Your task to perform on an android device: Open CNN.com Image 0: 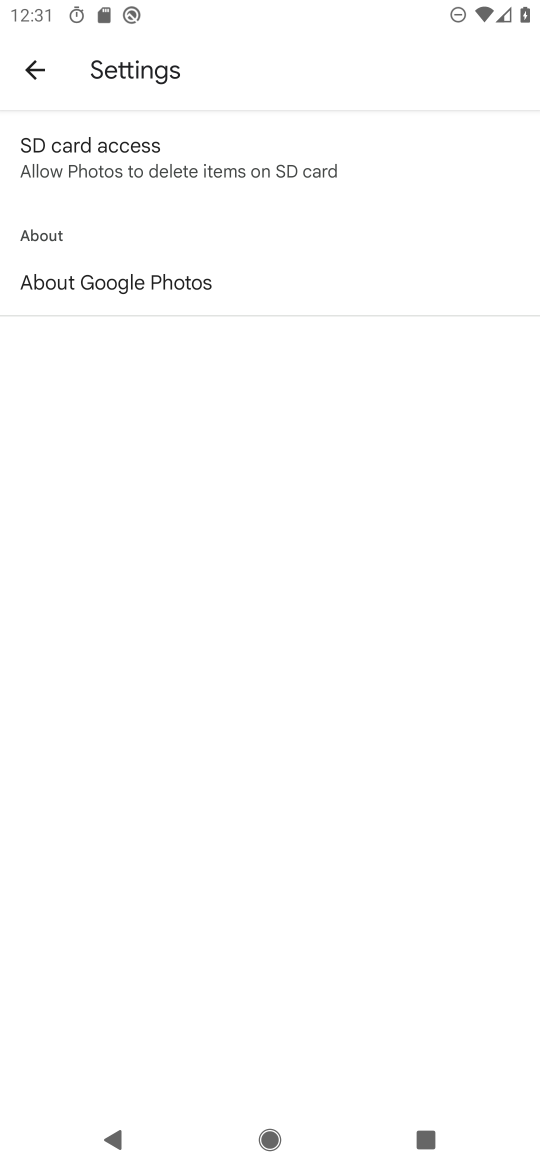
Step 0: press home button
Your task to perform on an android device: Open CNN.com Image 1: 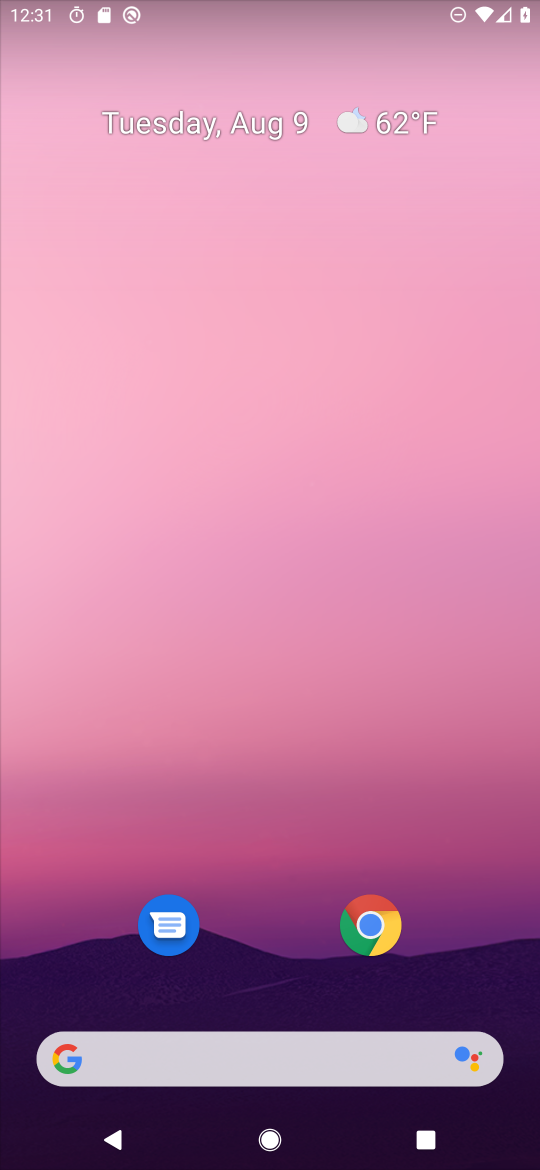
Step 1: click (365, 927)
Your task to perform on an android device: Open CNN.com Image 2: 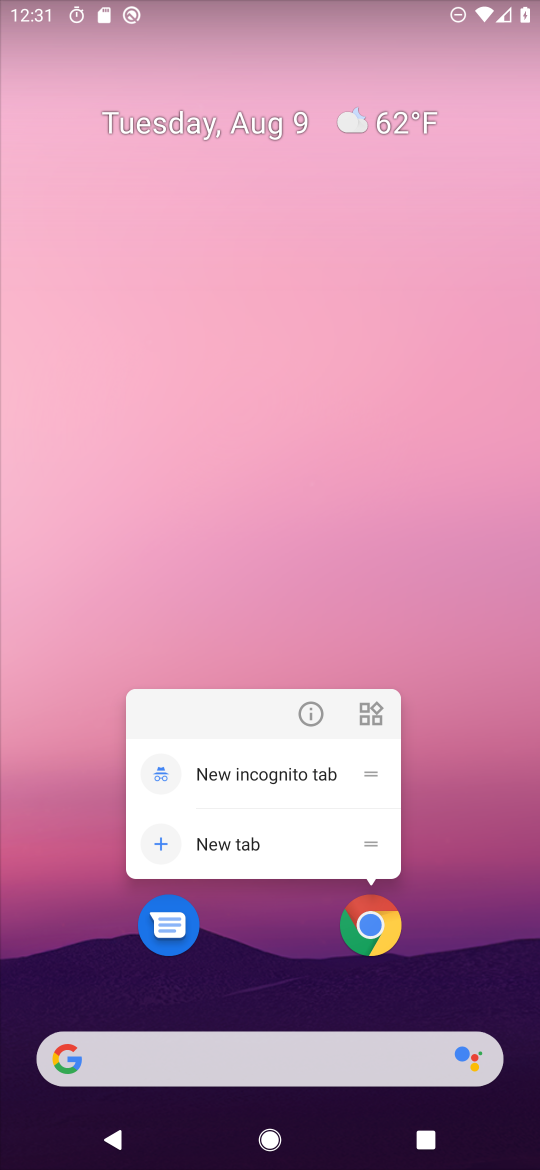
Step 2: click (369, 926)
Your task to perform on an android device: Open CNN.com Image 3: 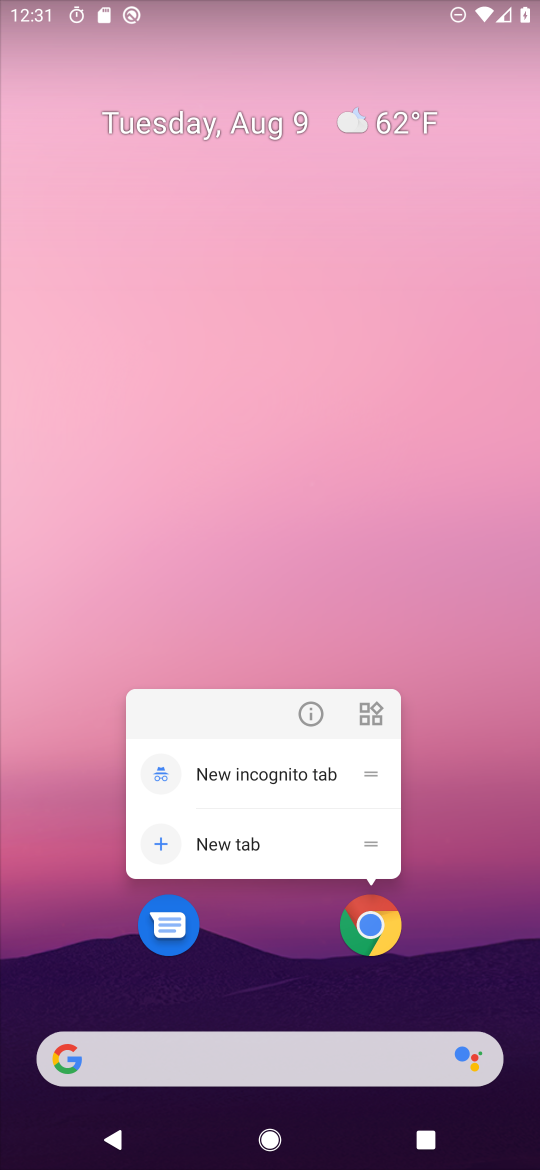
Step 3: click (379, 920)
Your task to perform on an android device: Open CNN.com Image 4: 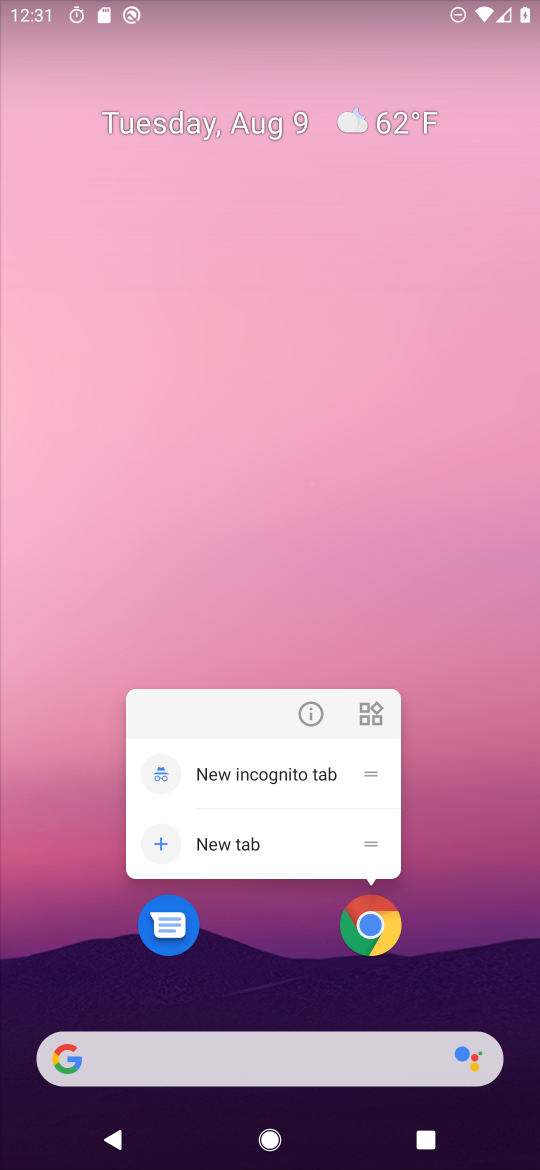
Step 4: click (444, 822)
Your task to perform on an android device: Open CNN.com Image 5: 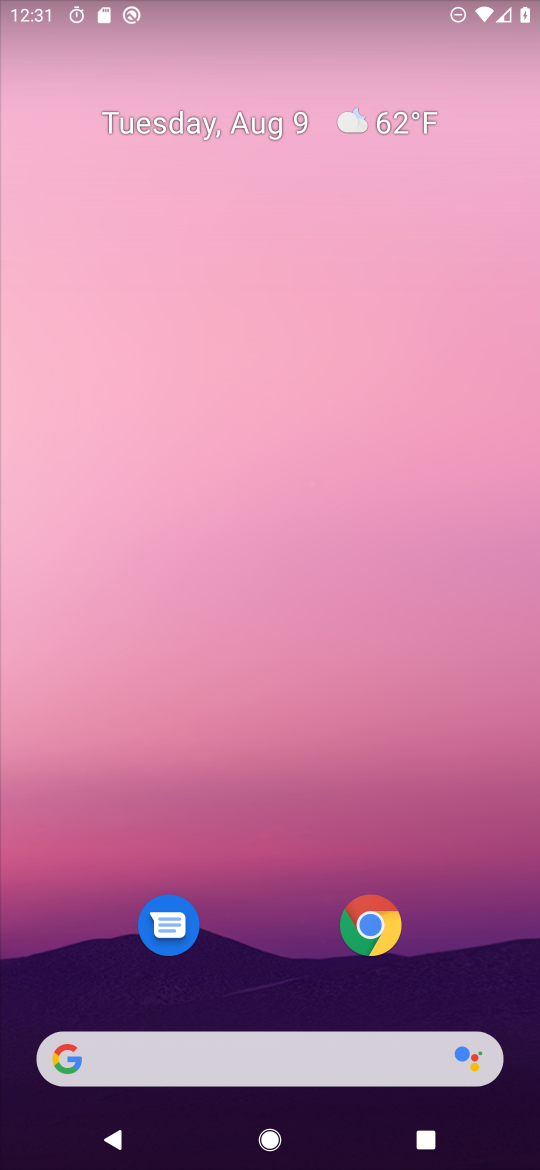
Step 5: drag from (256, 943) to (289, 284)
Your task to perform on an android device: Open CNN.com Image 6: 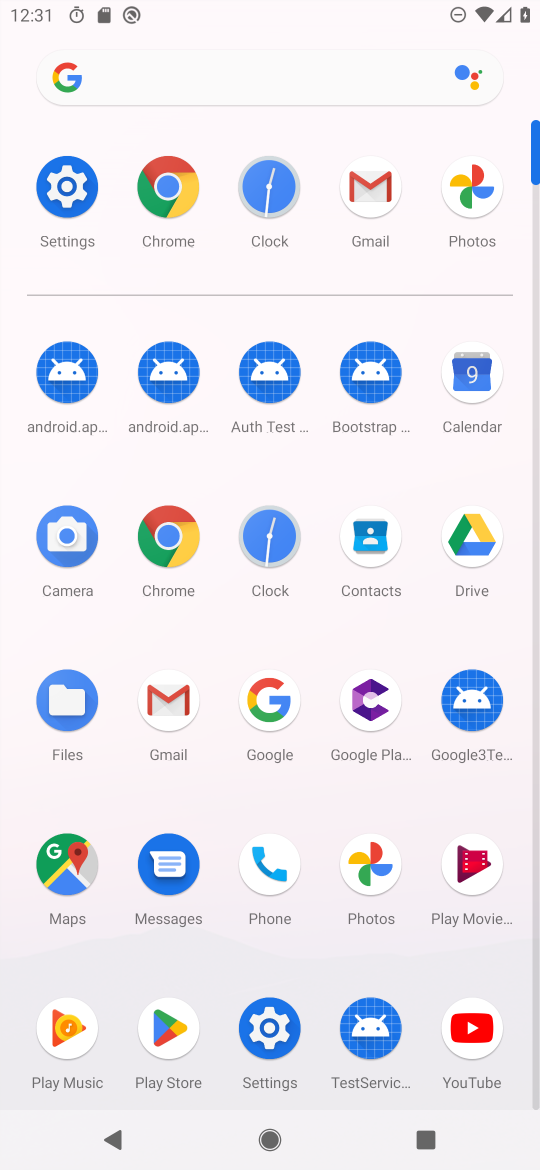
Step 6: click (167, 523)
Your task to perform on an android device: Open CNN.com Image 7: 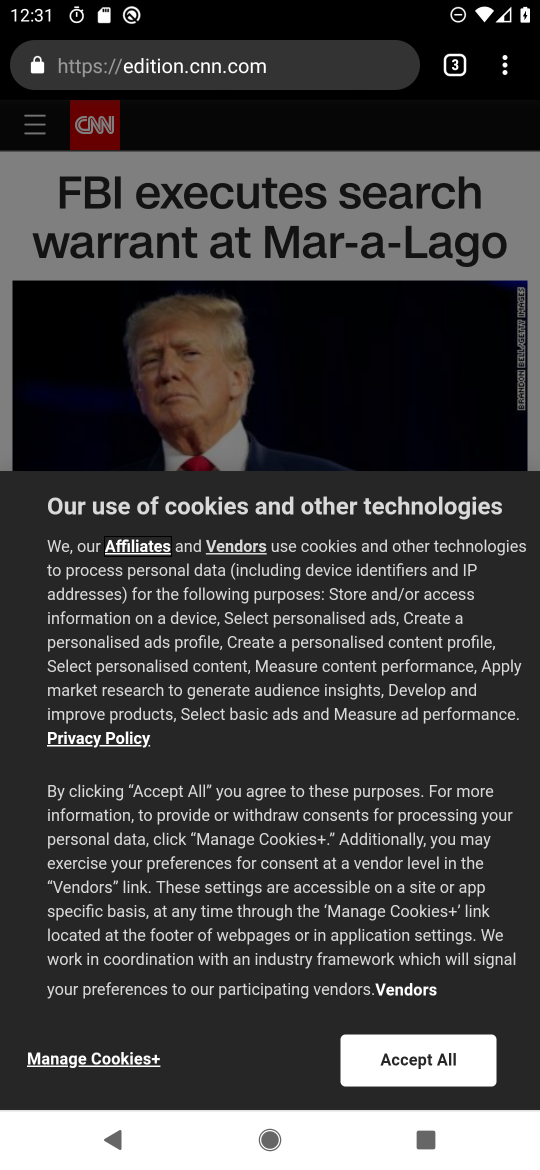
Step 7: task complete